Your task to perform on an android device: Open the stopwatch Image 0: 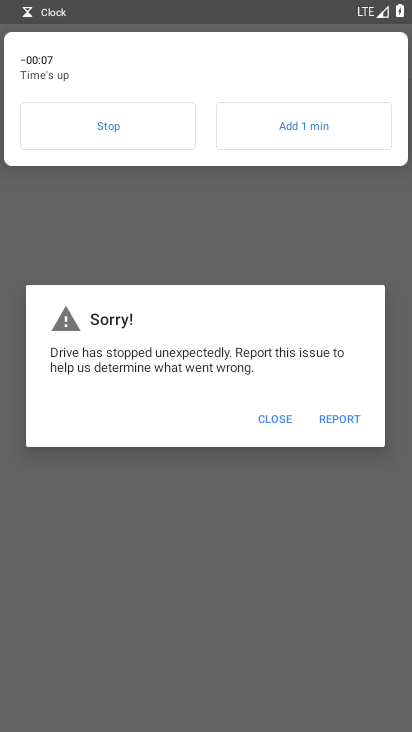
Step 0: press home button
Your task to perform on an android device: Open the stopwatch Image 1: 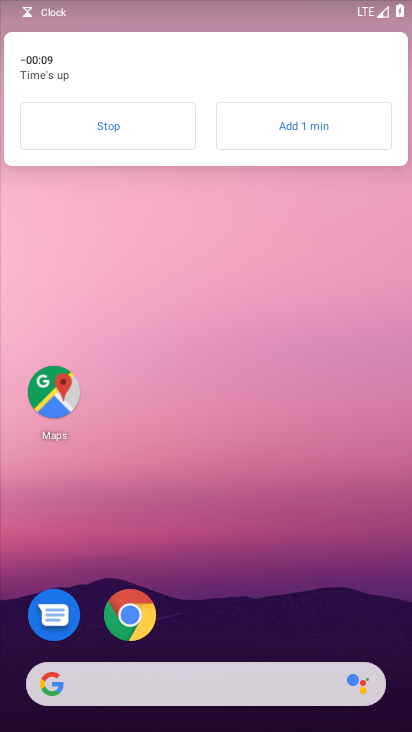
Step 1: drag from (250, 632) to (224, 129)
Your task to perform on an android device: Open the stopwatch Image 2: 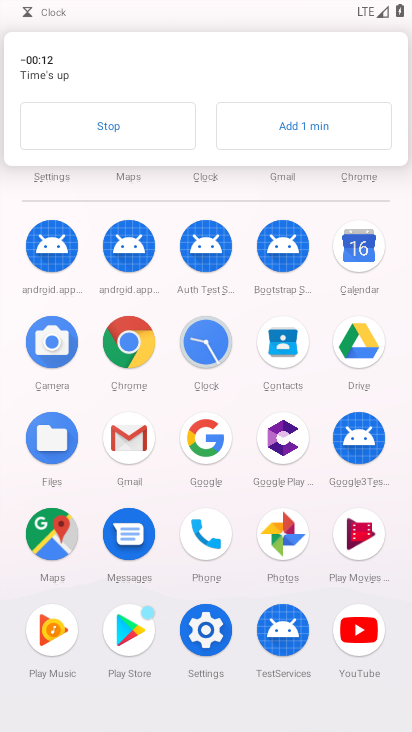
Step 2: click (168, 124)
Your task to perform on an android device: Open the stopwatch Image 3: 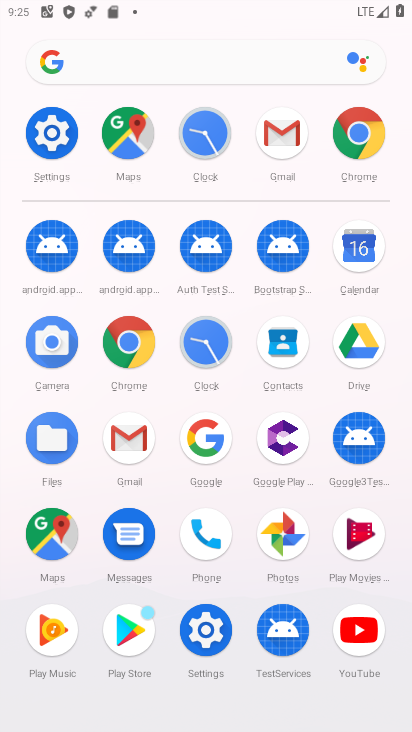
Step 3: click (216, 349)
Your task to perform on an android device: Open the stopwatch Image 4: 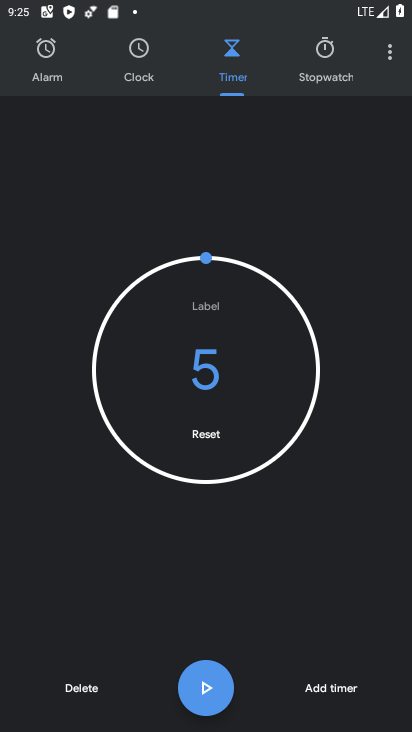
Step 4: click (313, 57)
Your task to perform on an android device: Open the stopwatch Image 5: 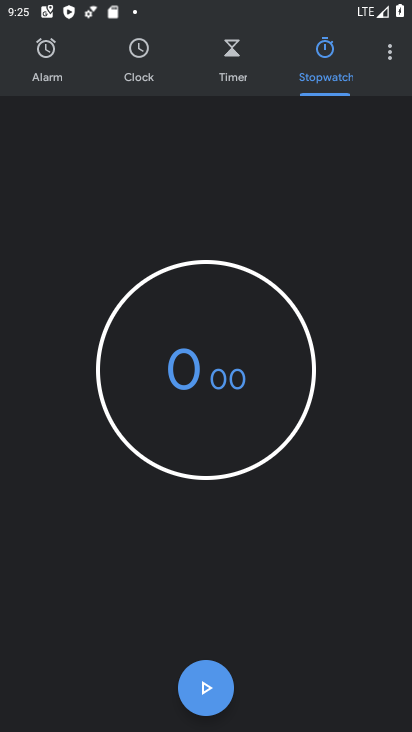
Step 5: task complete